Your task to perform on an android device: Go to notification settings Image 0: 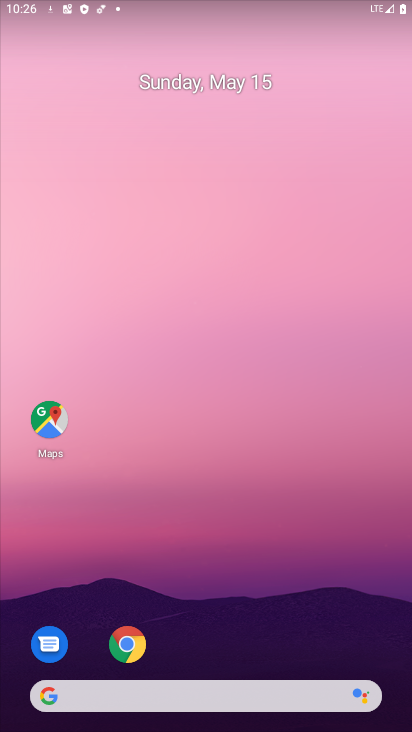
Step 0: drag from (275, 714) to (223, 361)
Your task to perform on an android device: Go to notification settings Image 1: 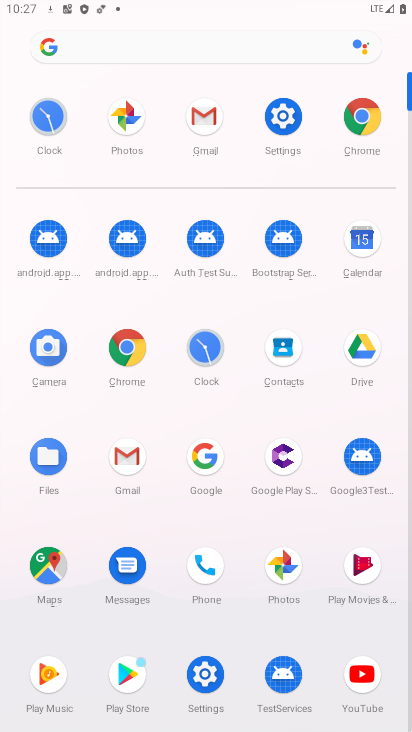
Step 1: click (282, 131)
Your task to perform on an android device: Go to notification settings Image 2: 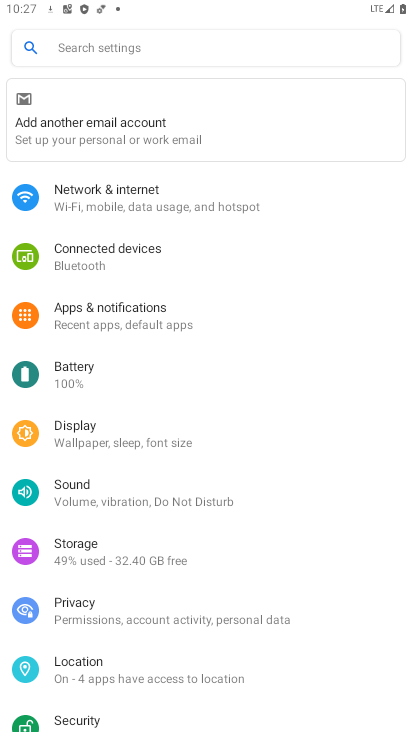
Step 2: click (147, 53)
Your task to perform on an android device: Go to notification settings Image 3: 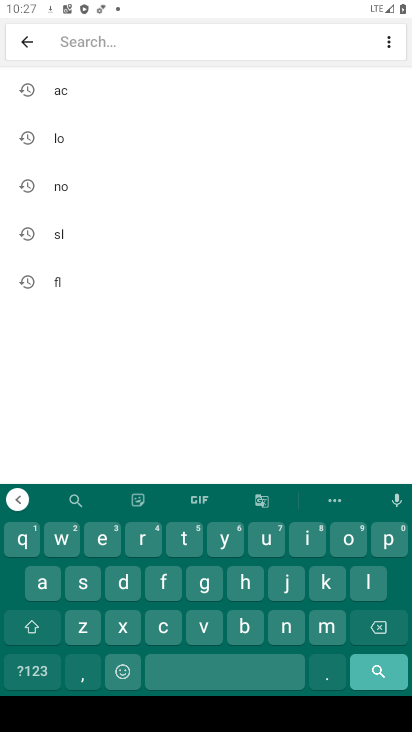
Step 3: click (101, 176)
Your task to perform on an android device: Go to notification settings Image 4: 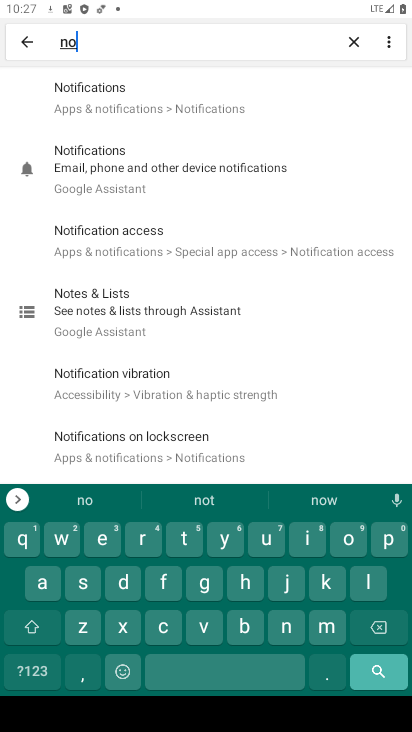
Step 4: click (112, 106)
Your task to perform on an android device: Go to notification settings Image 5: 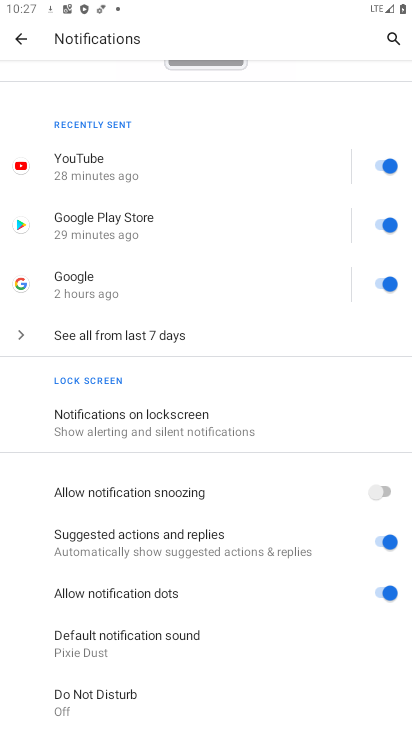
Step 5: click (89, 408)
Your task to perform on an android device: Go to notification settings Image 6: 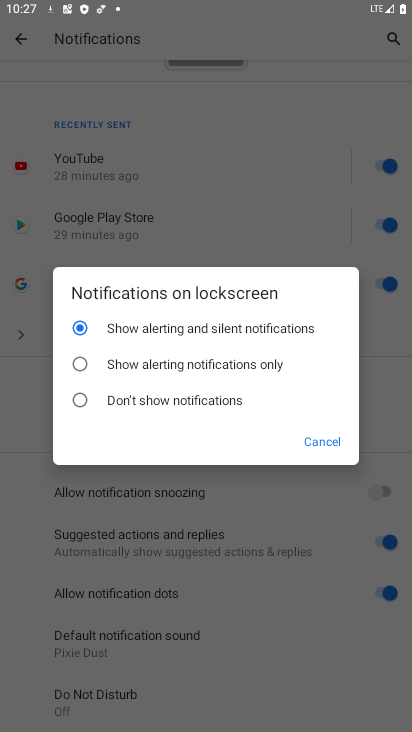
Step 6: task complete